Your task to perform on an android device: check google app version Image 0: 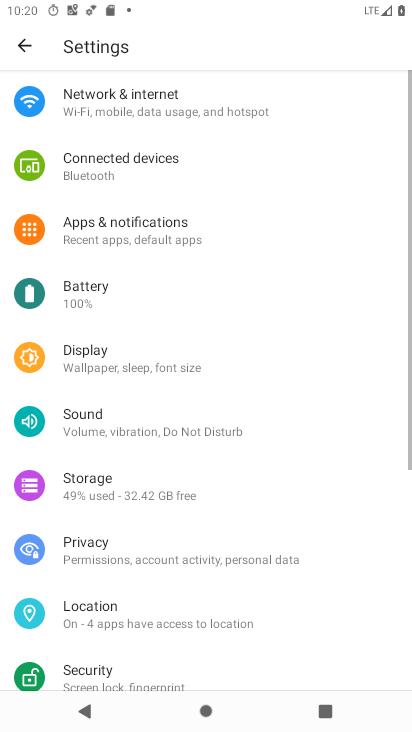
Step 0: press home button
Your task to perform on an android device: check google app version Image 1: 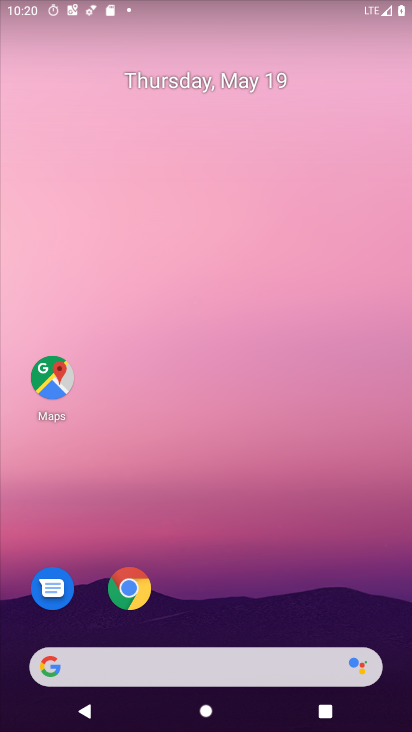
Step 1: drag from (151, 667) to (339, 44)
Your task to perform on an android device: check google app version Image 2: 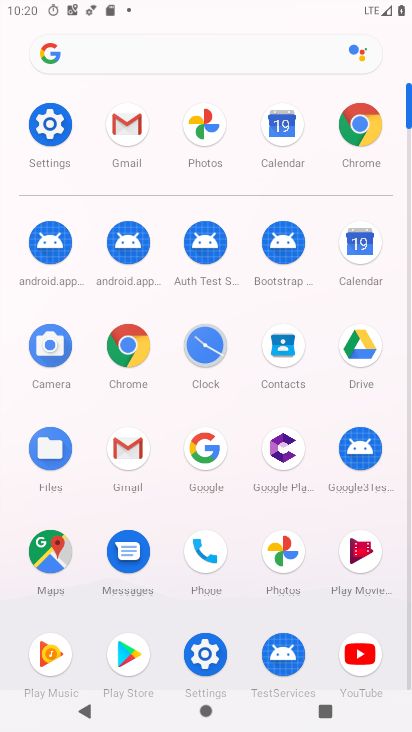
Step 2: click (215, 450)
Your task to perform on an android device: check google app version Image 3: 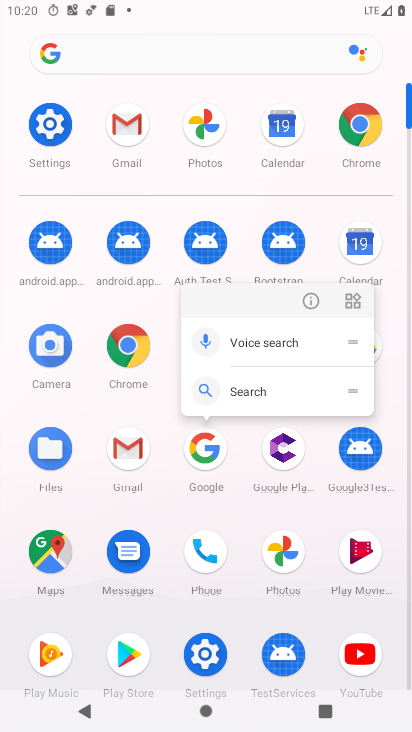
Step 3: click (315, 307)
Your task to perform on an android device: check google app version Image 4: 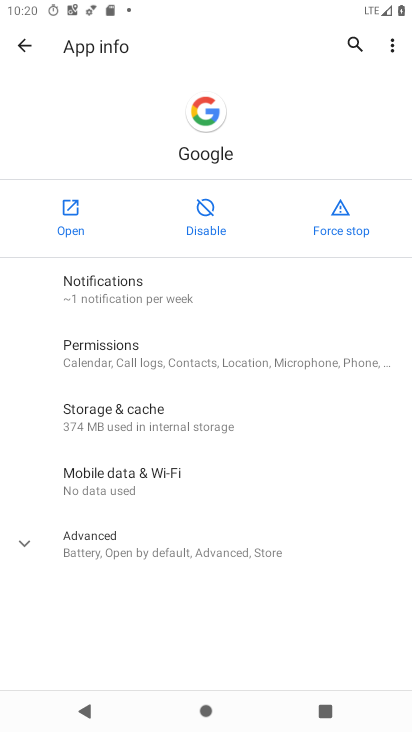
Step 4: click (165, 541)
Your task to perform on an android device: check google app version Image 5: 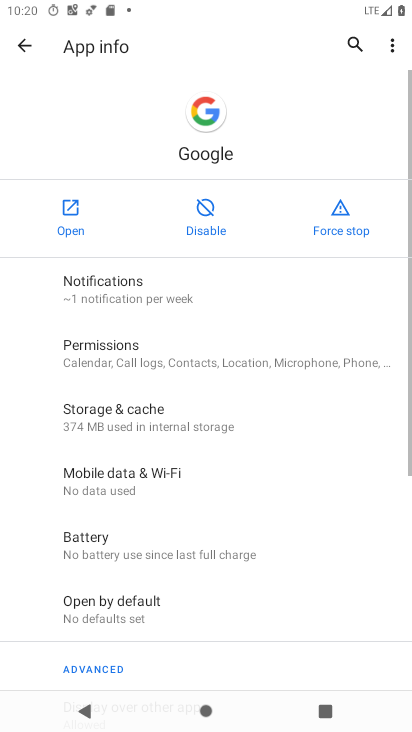
Step 5: task complete